Your task to perform on an android device: open a bookmark in the chrome app Image 0: 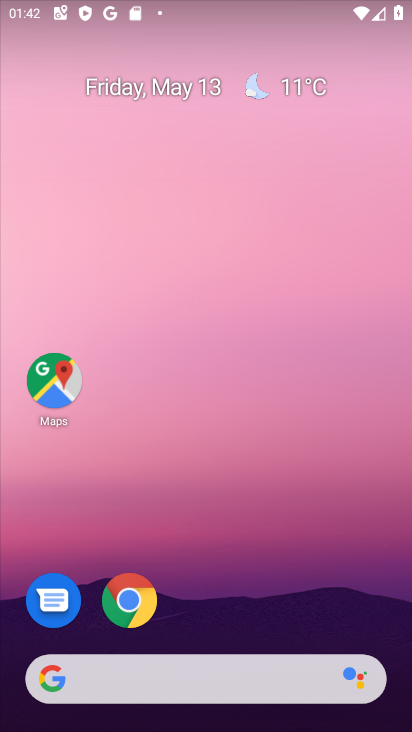
Step 0: drag from (188, 609) to (254, 125)
Your task to perform on an android device: open a bookmark in the chrome app Image 1: 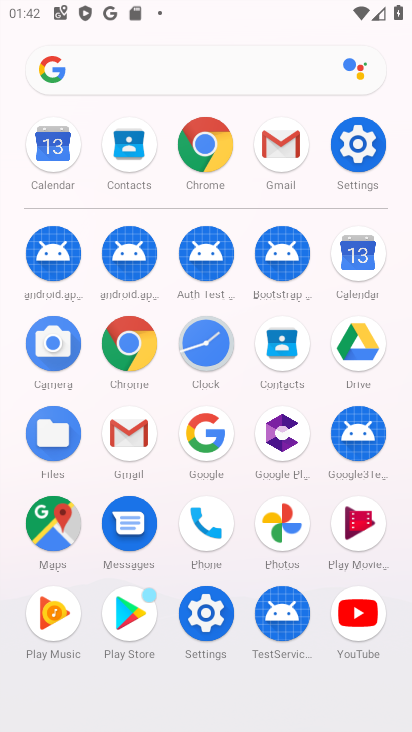
Step 1: click (123, 342)
Your task to perform on an android device: open a bookmark in the chrome app Image 2: 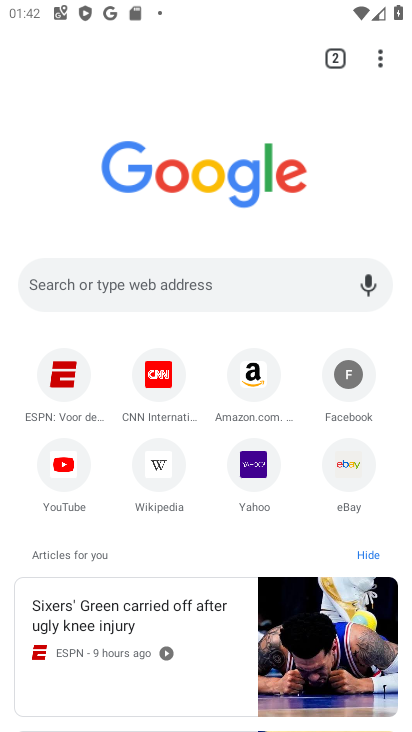
Step 2: click (381, 61)
Your task to perform on an android device: open a bookmark in the chrome app Image 3: 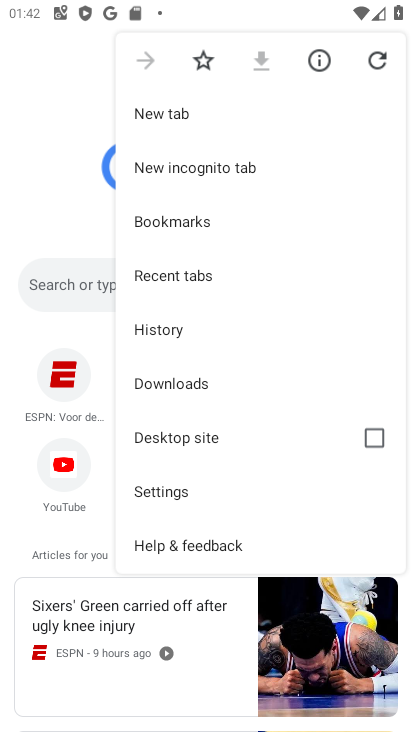
Step 3: drag from (224, 481) to (261, 100)
Your task to perform on an android device: open a bookmark in the chrome app Image 4: 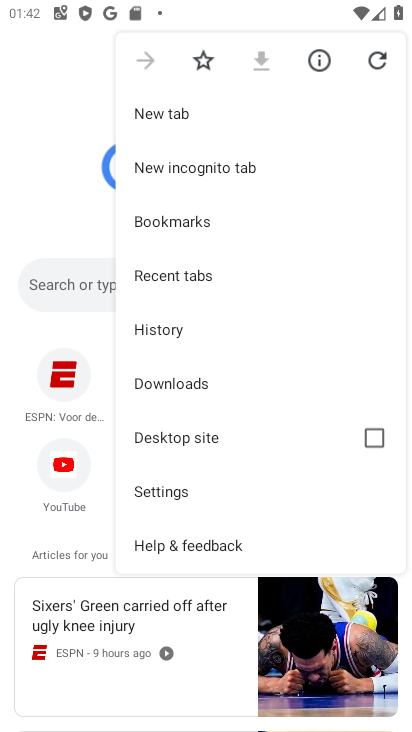
Step 4: click (197, 214)
Your task to perform on an android device: open a bookmark in the chrome app Image 5: 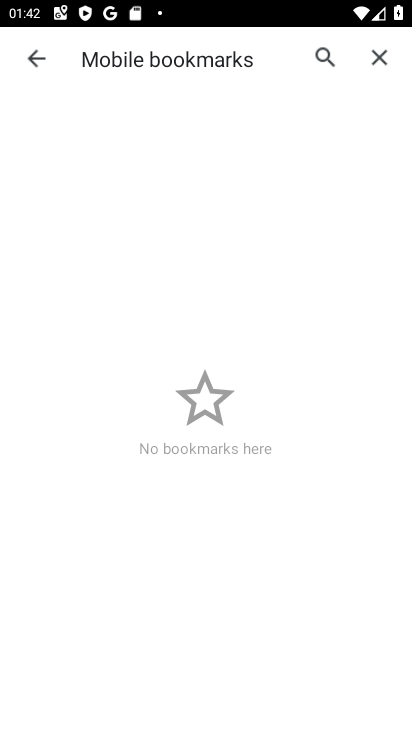
Step 5: task complete